Your task to perform on an android device: toggle javascript in the chrome app Image 0: 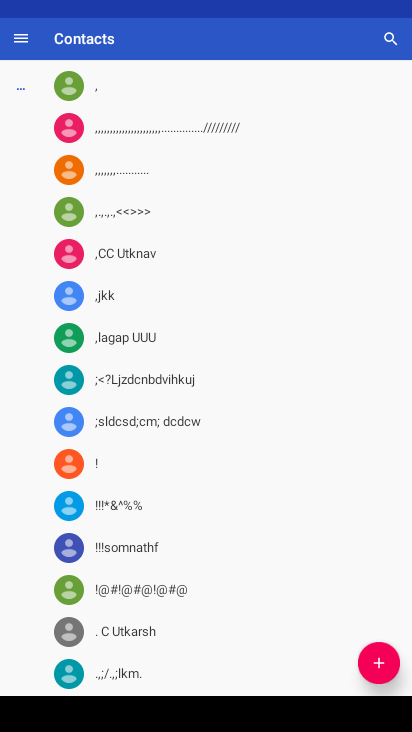
Step 0: press home button
Your task to perform on an android device: toggle javascript in the chrome app Image 1: 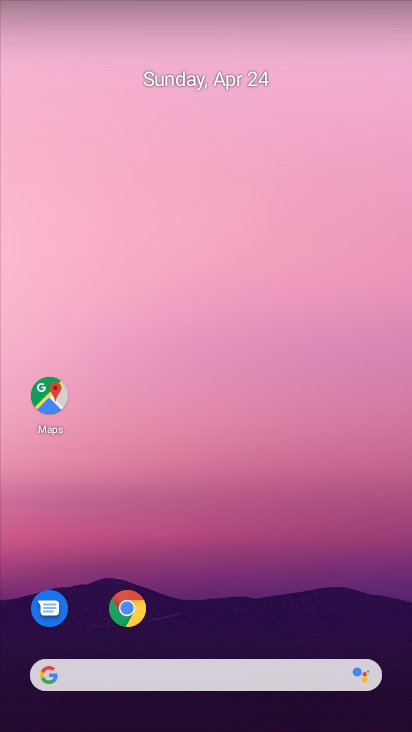
Step 1: click (136, 606)
Your task to perform on an android device: toggle javascript in the chrome app Image 2: 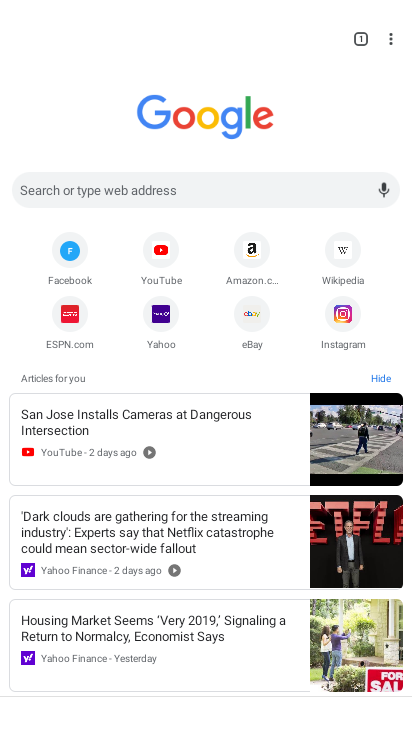
Step 2: click (390, 37)
Your task to perform on an android device: toggle javascript in the chrome app Image 3: 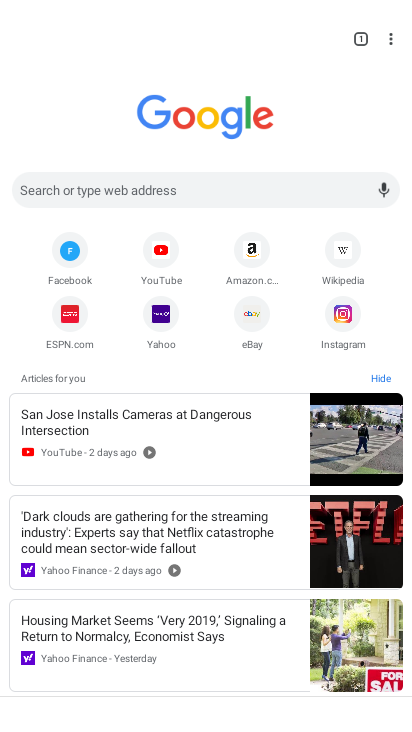
Step 3: drag from (390, 35) to (268, 317)
Your task to perform on an android device: toggle javascript in the chrome app Image 4: 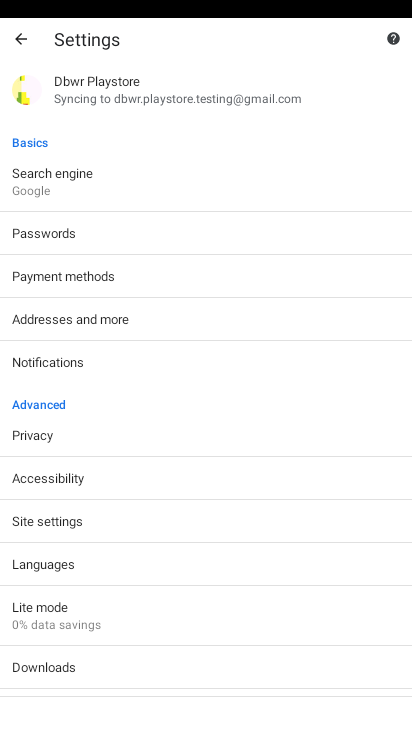
Step 4: click (148, 515)
Your task to perform on an android device: toggle javascript in the chrome app Image 5: 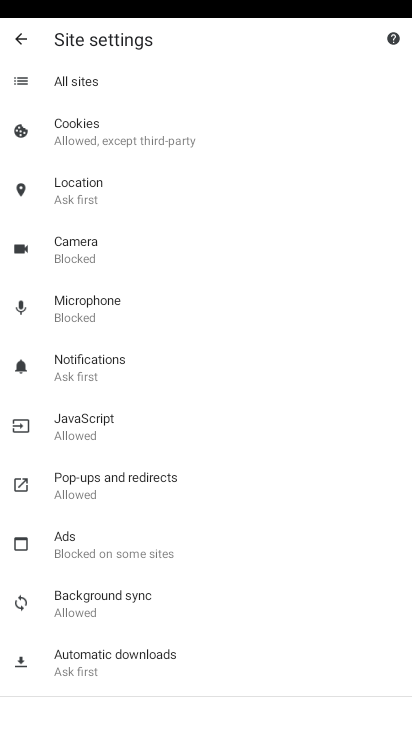
Step 5: click (198, 422)
Your task to perform on an android device: toggle javascript in the chrome app Image 6: 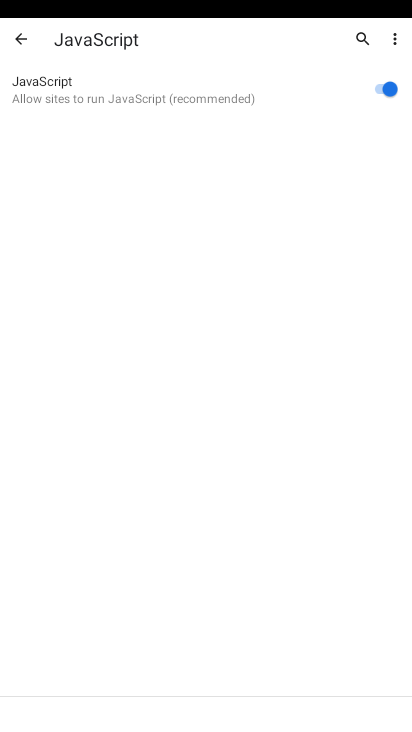
Step 6: click (381, 88)
Your task to perform on an android device: toggle javascript in the chrome app Image 7: 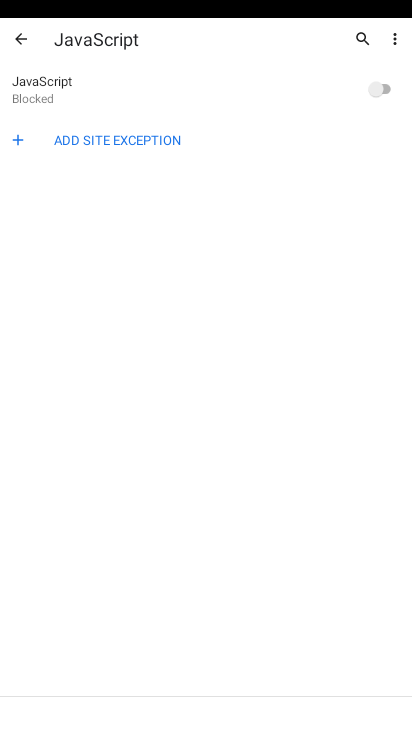
Step 7: task complete